Your task to perform on an android device: Go to Maps Image 0: 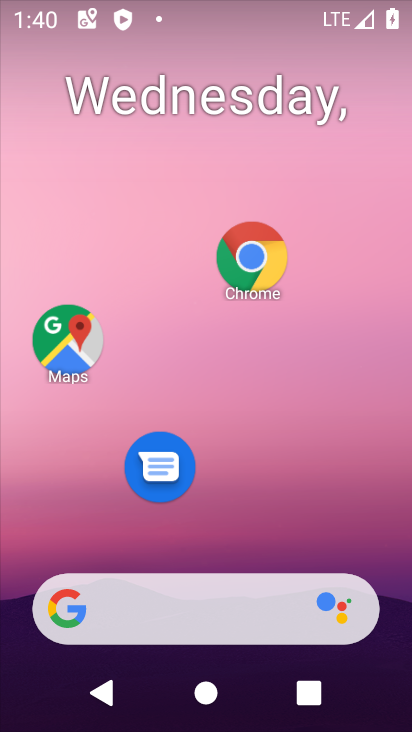
Step 0: click (68, 328)
Your task to perform on an android device: Go to Maps Image 1: 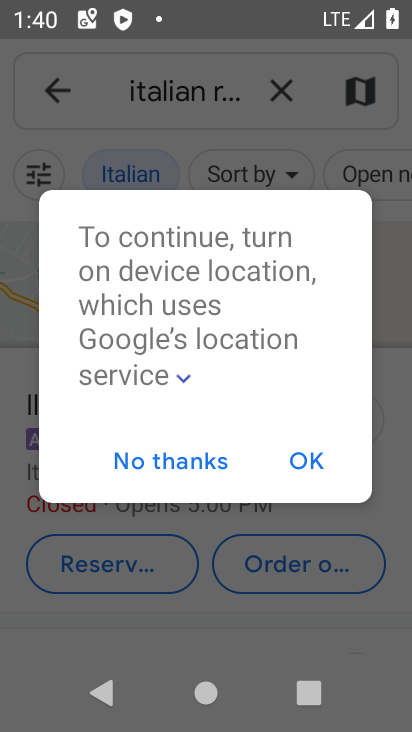
Step 1: click (317, 454)
Your task to perform on an android device: Go to Maps Image 2: 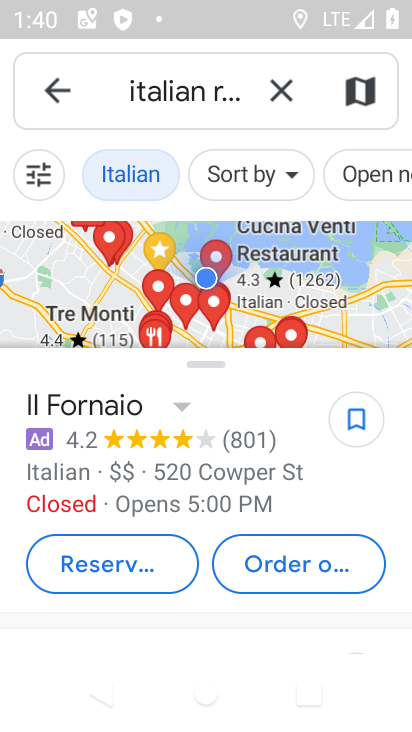
Step 2: task complete